Your task to perform on an android device: change the upload size in google photos Image 0: 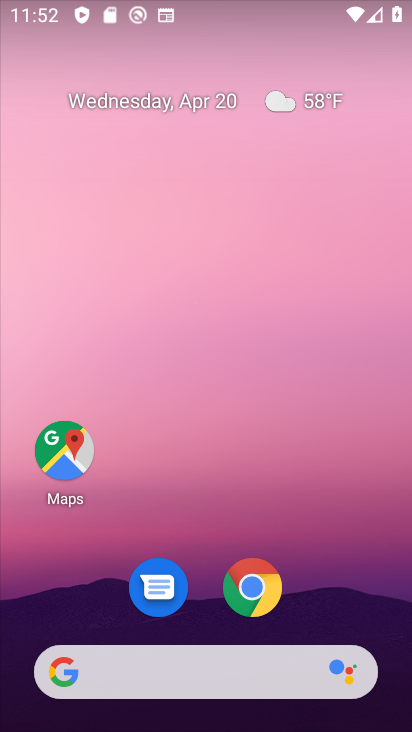
Step 0: drag from (198, 548) to (164, 140)
Your task to perform on an android device: change the upload size in google photos Image 1: 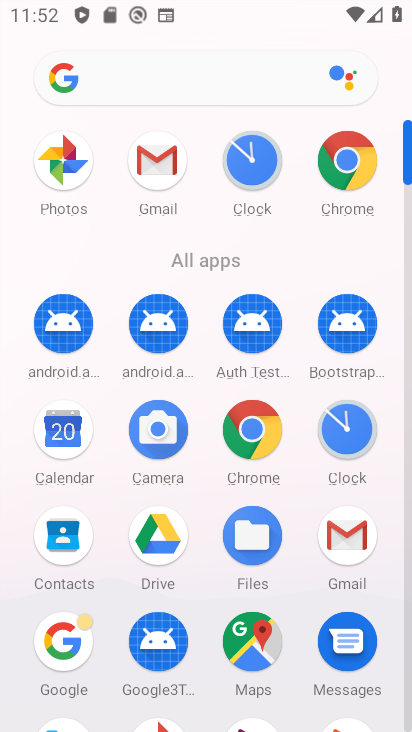
Step 1: click (66, 171)
Your task to perform on an android device: change the upload size in google photos Image 2: 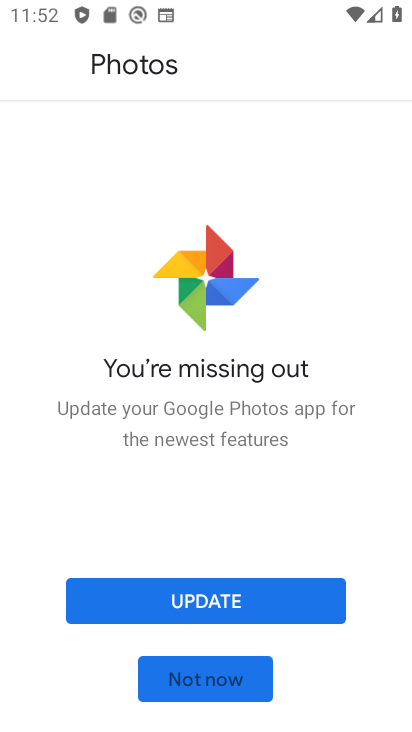
Step 2: click (205, 676)
Your task to perform on an android device: change the upload size in google photos Image 3: 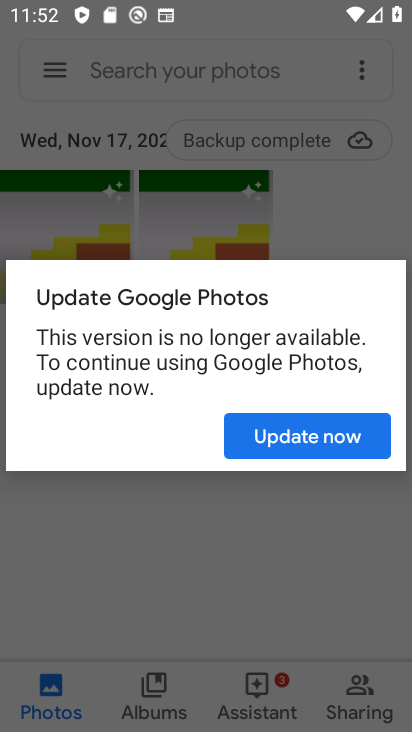
Step 3: click (328, 458)
Your task to perform on an android device: change the upload size in google photos Image 4: 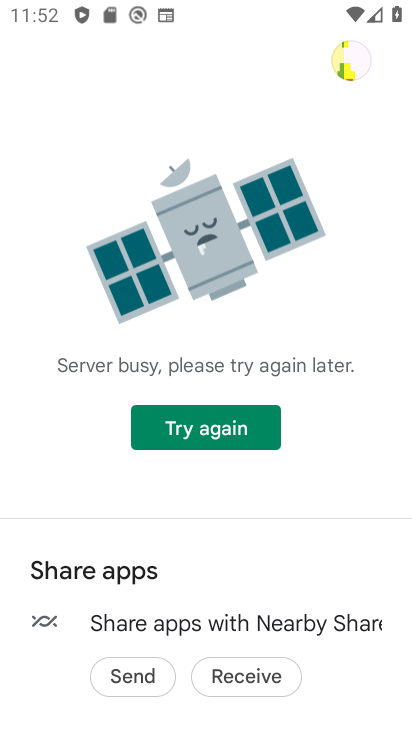
Step 4: press back button
Your task to perform on an android device: change the upload size in google photos Image 5: 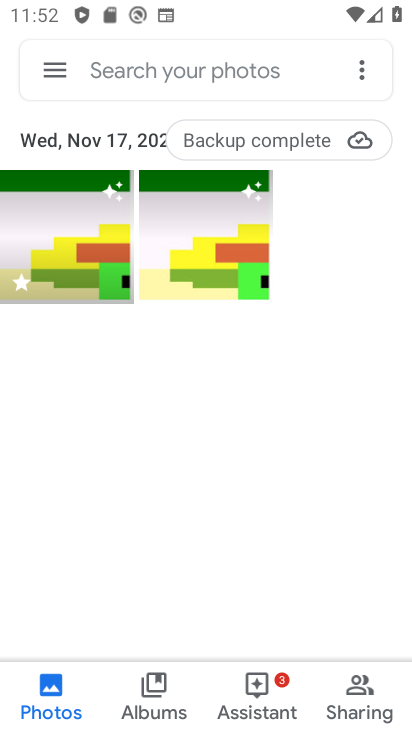
Step 5: click (44, 80)
Your task to perform on an android device: change the upload size in google photos Image 6: 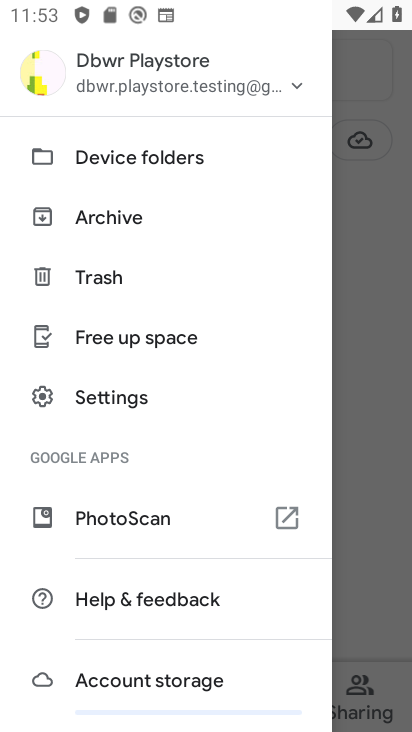
Step 6: click (138, 396)
Your task to perform on an android device: change the upload size in google photos Image 7: 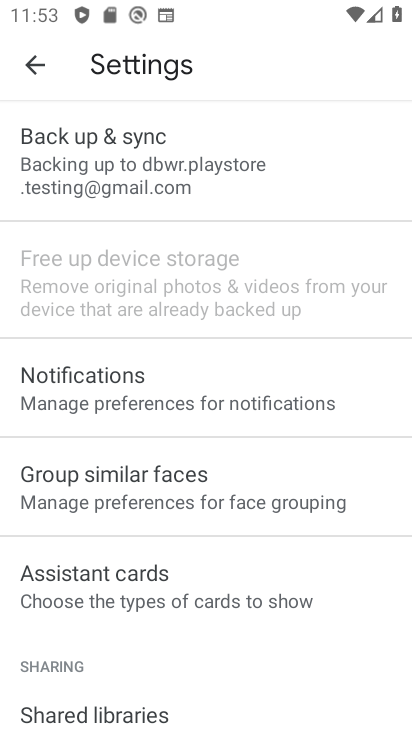
Step 7: click (200, 169)
Your task to perform on an android device: change the upload size in google photos Image 8: 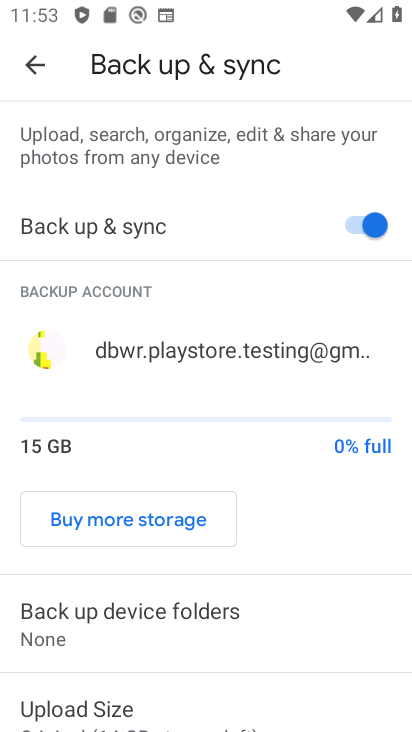
Step 8: click (217, 686)
Your task to perform on an android device: change the upload size in google photos Image 9: 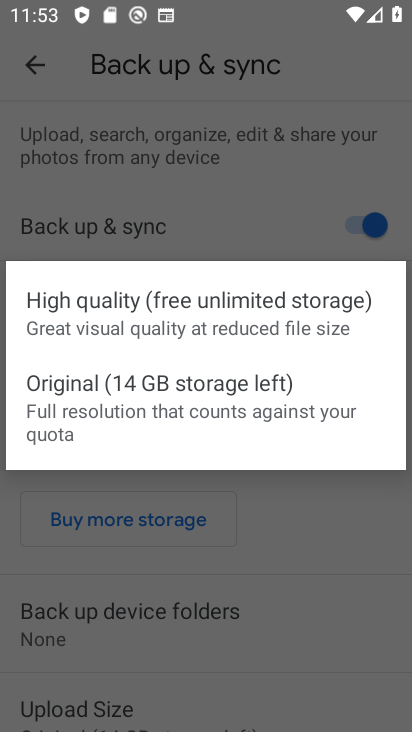
Step 9: click (274, 548)
Your task to perform on an android device: change the upload size in google photos Image 10: 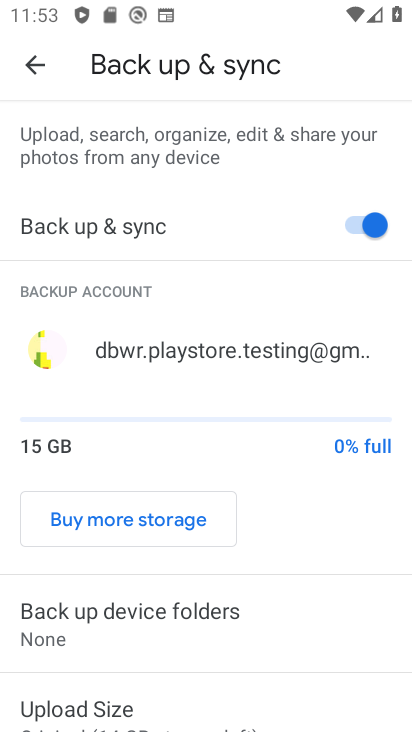
Step 10: drag from (274, 548) to (267, 126)
Your task to perform on an android device: change the upload size in google photos Image 11: 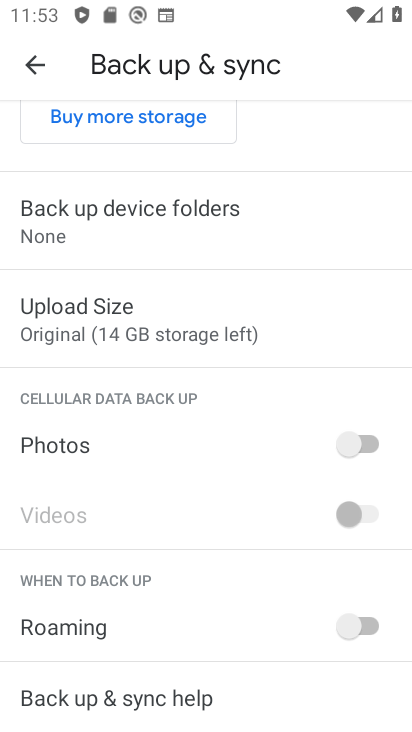
Step 11: click (163, 303)
Your task to perform on an android device: change the upload size in google photos Image 12: 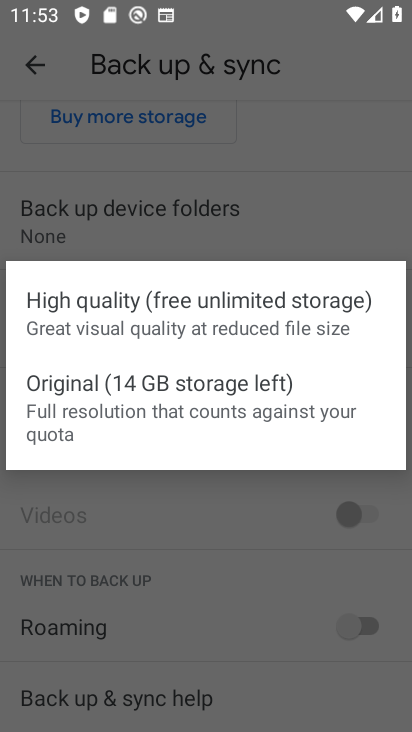
Step 12: click (163, 303)
Your task to perform on an android device: change the upload size in google photos Image 13: 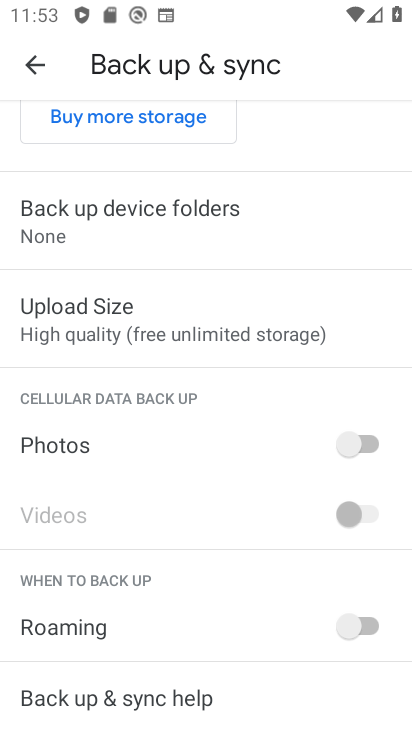
Step 13: task complete